Your task to perform on an android device: snooze an email in the gmail app Image 0: 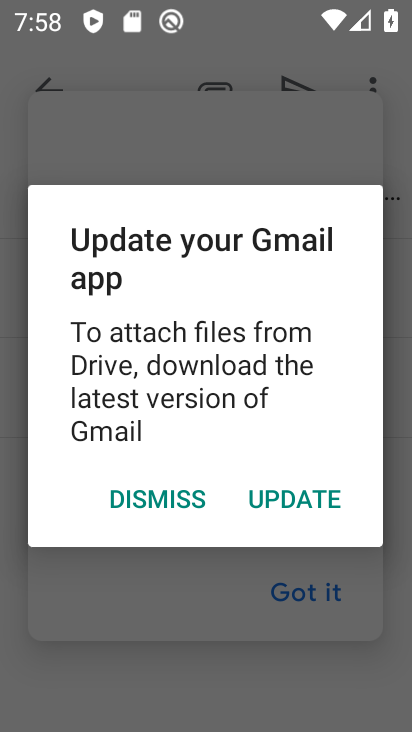
Step 0: press home button
Your task to perform on an android device: snooze an email in the gmail app Image 1: 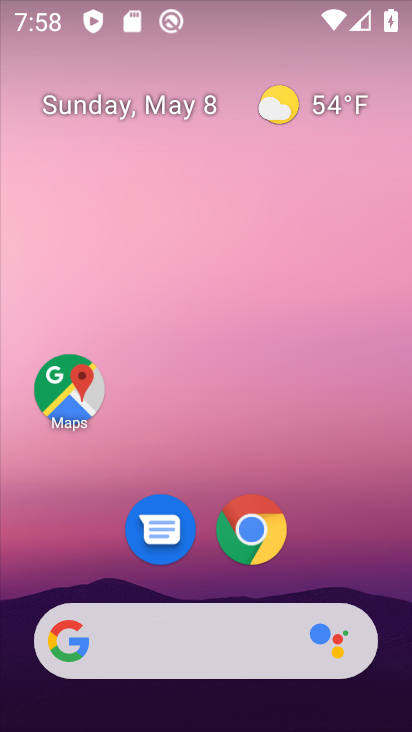
Step 1: drag from (379, 536) to (344, 150)
Your task to perform on an android device: snooze an email in the gmail app Image 2: 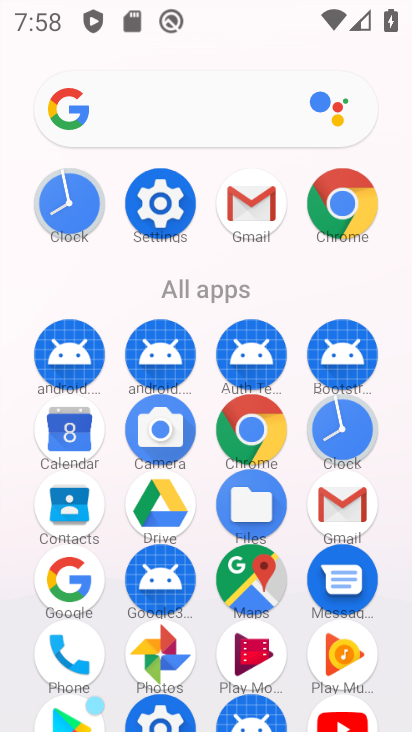
Step 2: click (339, 517)
Your task to perform on an android device: snooze an email in the gmail app Image 3: 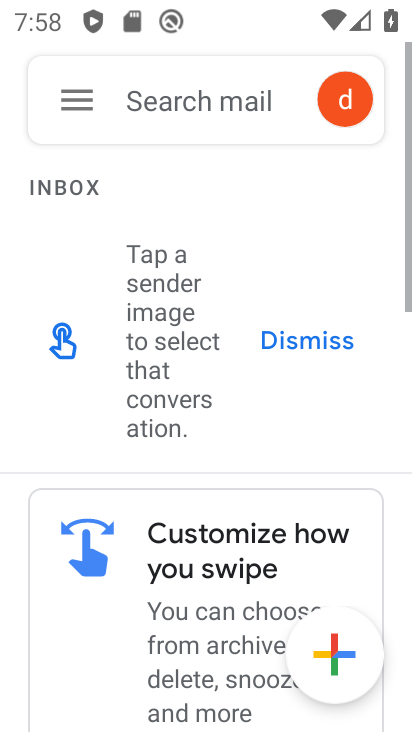
Step 3: click (217, 99)
Your task to perform on an android device: snooze an email in the gmail app Image 4: 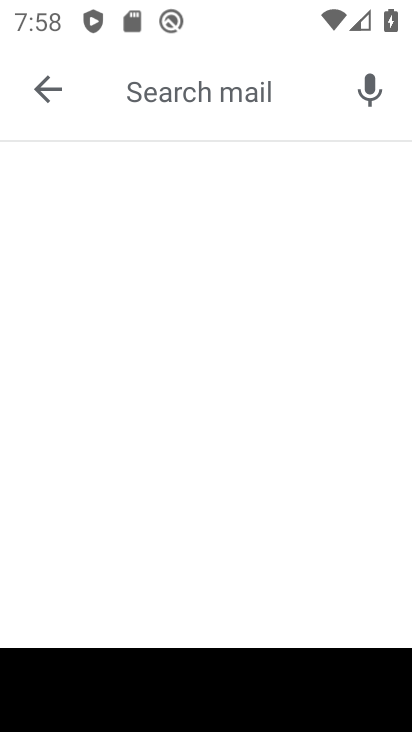
Step 4: click (37, 99)
Your task to perform on an android device: snooze an email in the gmail app Image 5: 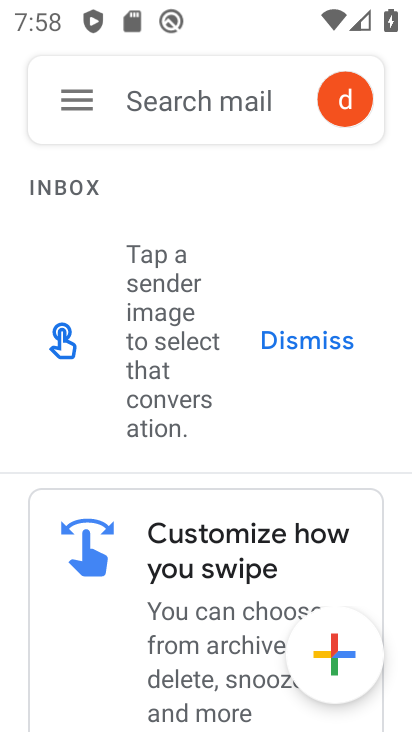
Step 5: click (72, 104)
Your task to perform on an android device: snooze an email in the gmail app Image 6: 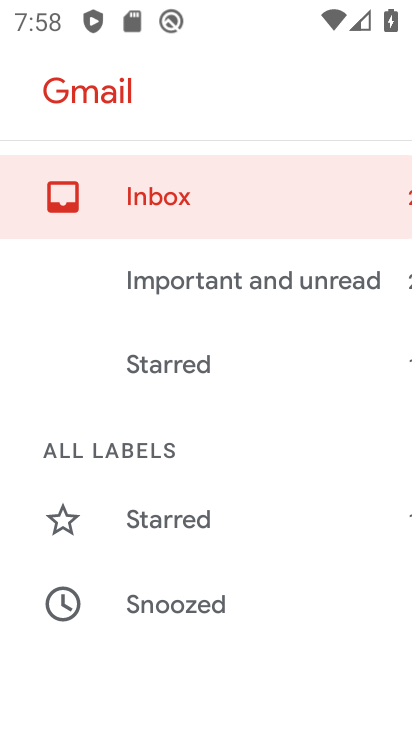
Step 6: click (188, 193)
Your task to perform on an android device: snooze an email in the gmail app Image 7: 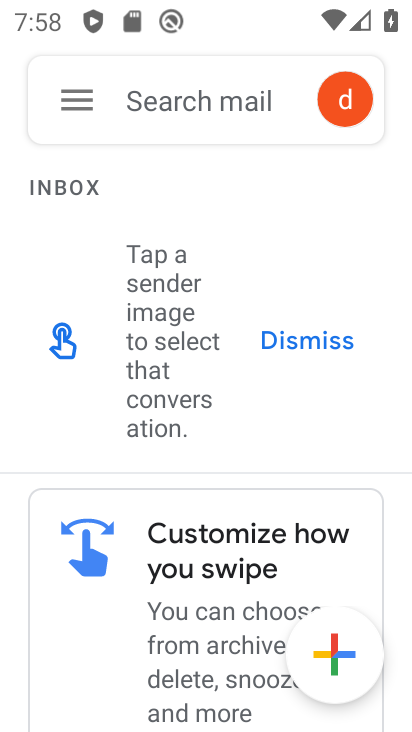
Step 7: drag from (127, 636) to (145, 300)
Your task to perform on an android device: snooze an email in the gmail app Image 8: 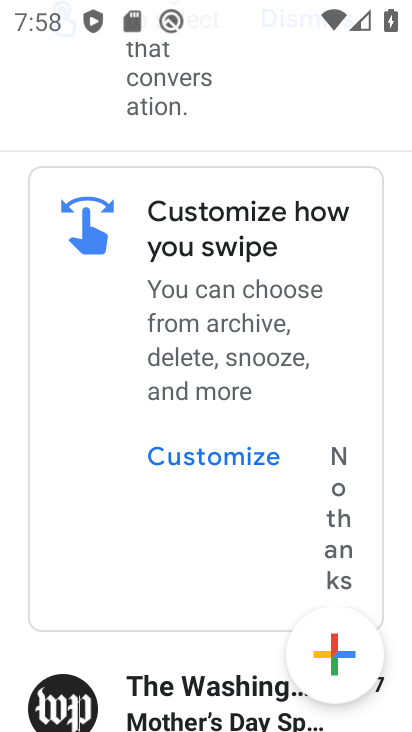
Step 8: drag from (201, 664) to (147, 323)
Your task to perform on an android device: snooze an email in the gmail app Image 9: 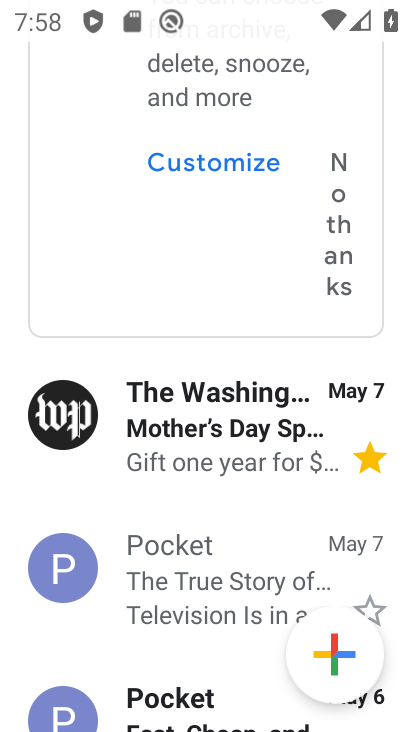
Step 9: click (239, 597)
Your task to perform on an android device: snooze an email in the gmail app Image 10: 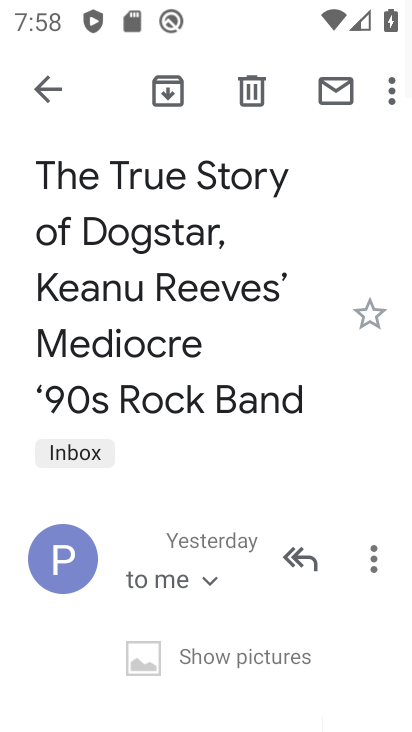
Step 10: click (393, 96)
Your task to perform on an android device: snooze an email in the gmail app Image 11: 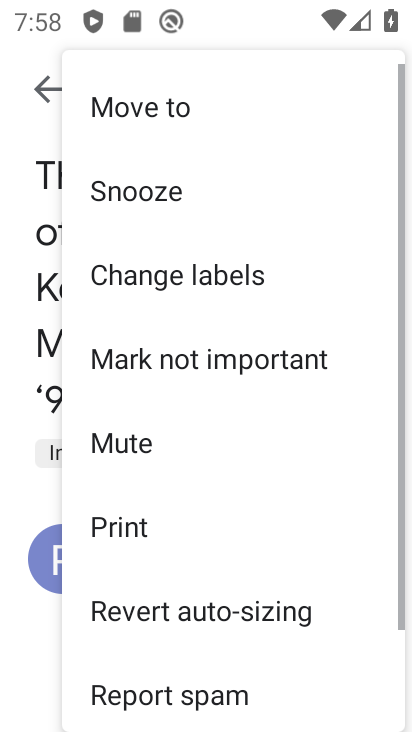
Step 11: click (165, 199)
Your task to perform on an android device: snooze an email in the gmail app Image 12: 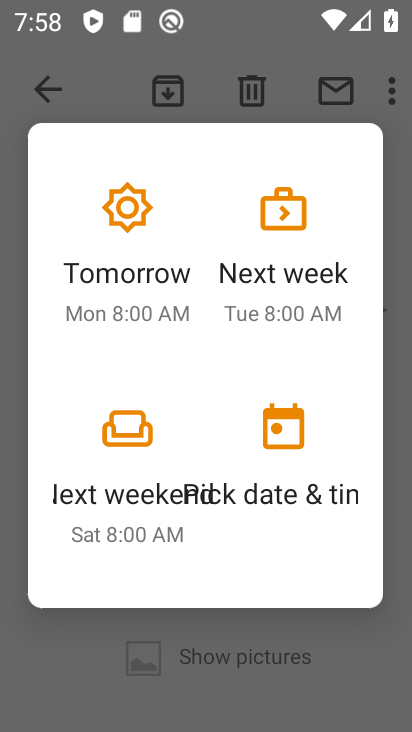
Step 12: click (136, 243)
Your task to perform on an android device: snooze an email in the gmail app Image 13: 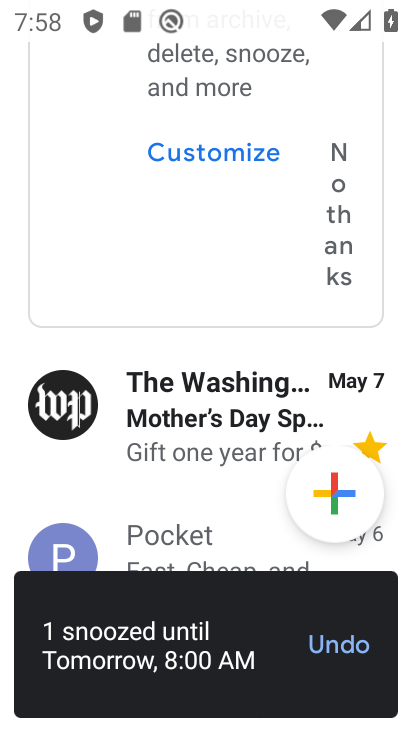
Step 13: task complete